Your task to perform on an android device: Go to display settings Image 0: 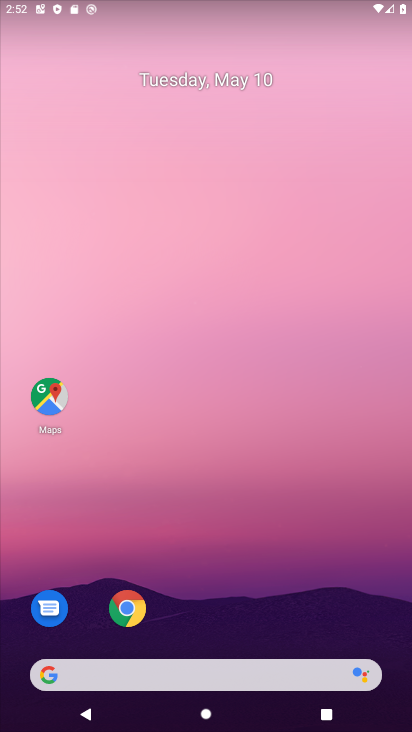
Step 0: drag from (209, 603) to (254, 8)
Your task to perform on an android device: Go to display settings Image 1: 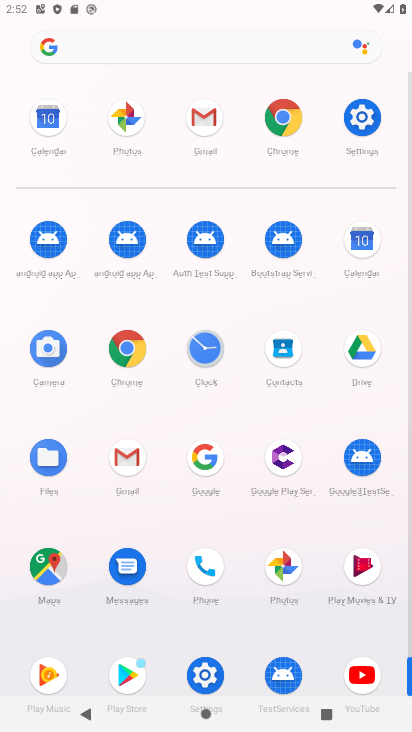
Step 1: click (363, 150)
Your task to perform on an android device: Go to display settings Image 2: 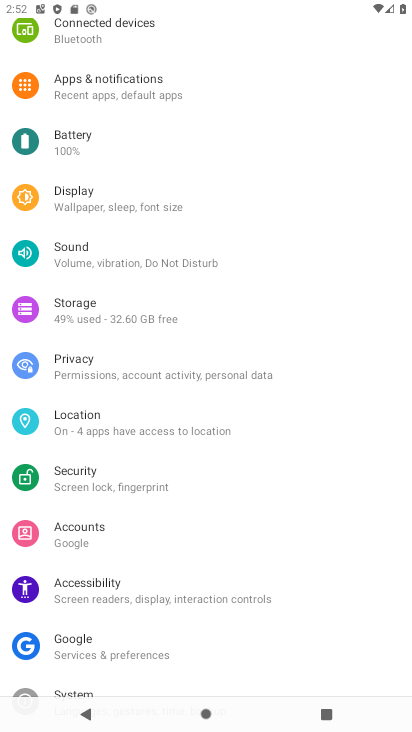
Step 2: click (111, 210)
Your task to perform on an android device: Go to display settings Image 3: 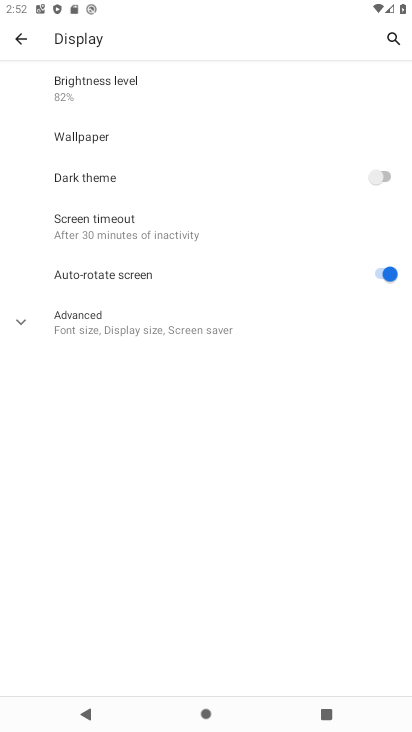
Step 3: task complete